Your task to perform on an android device: Search for the best way to get rid of a cold Image 0: 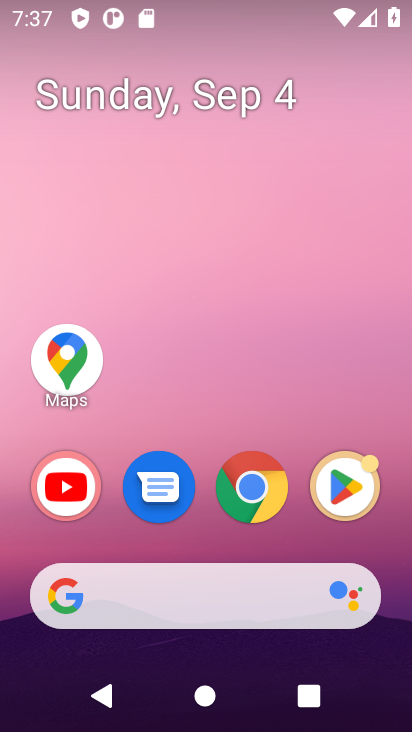
Step 0: drag from (270, 64) to (172, 79)
Your task to perform on an android device: Search for the best way to get rid of a cold Image 1: 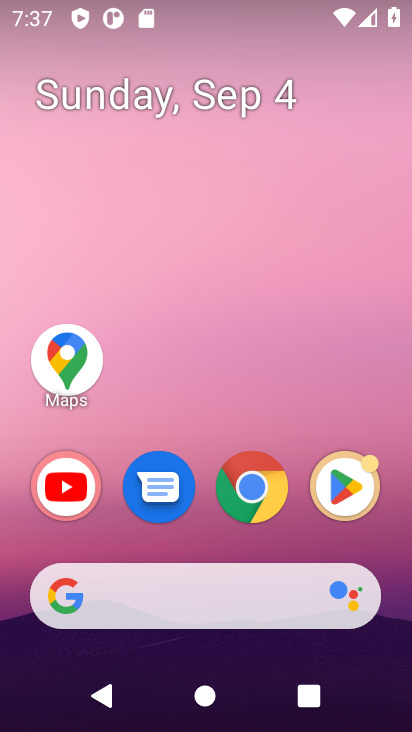
Step 1: click (191, 115)
Your task to perform on an android device: Search for the best way to get rid of a cold Image 2: 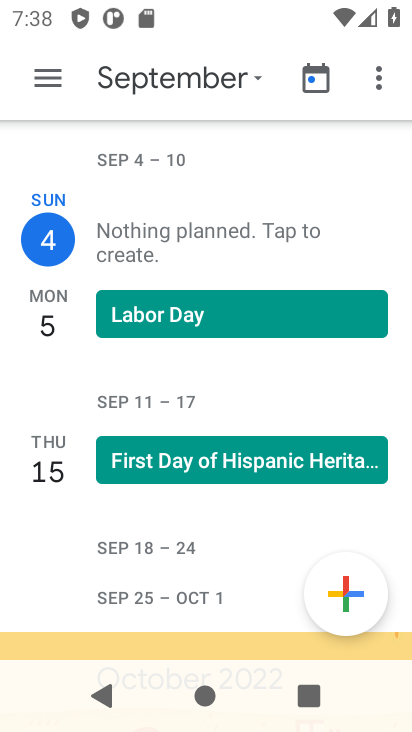
Step 2: press home button
Your task to perform on an android device: Search for the best way to get rid of a cold Image 3: 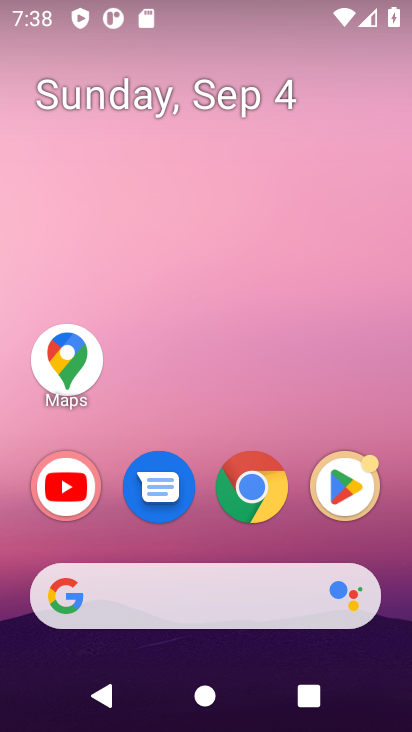
Step 3: click (160, 609)
Your task to perform on an android device: Search for the best way to get rid of a cold Image 4: 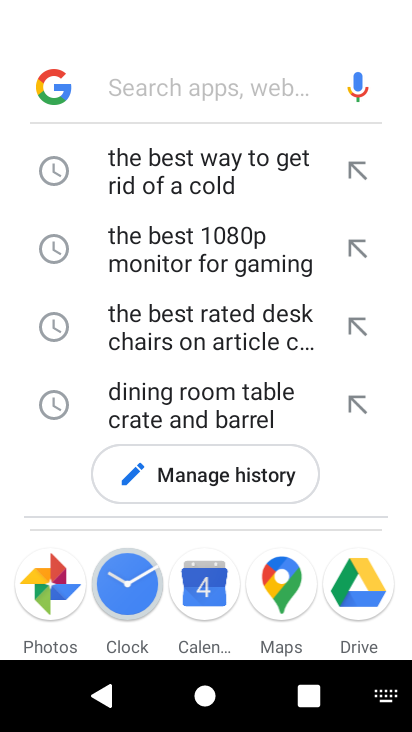
Step 4: type "the best way to get rid of a cold"
Your task to perform on an android device: Search for the best way to get rid of a cold Image 5: 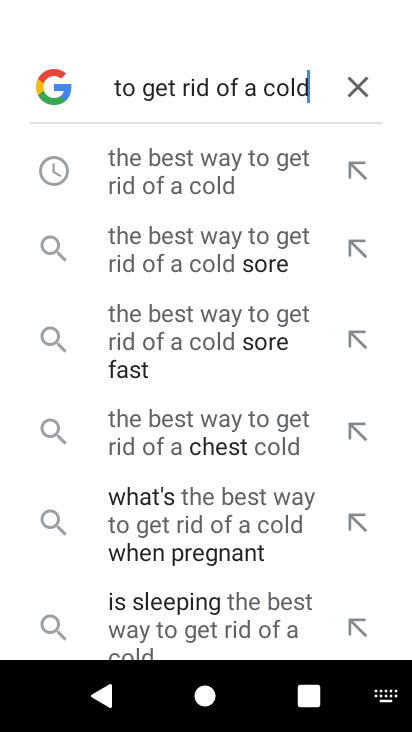
Step 5: click (251, 151)
Your task to perform on an android device: Search for the best way to get rid of a cold Image 6: 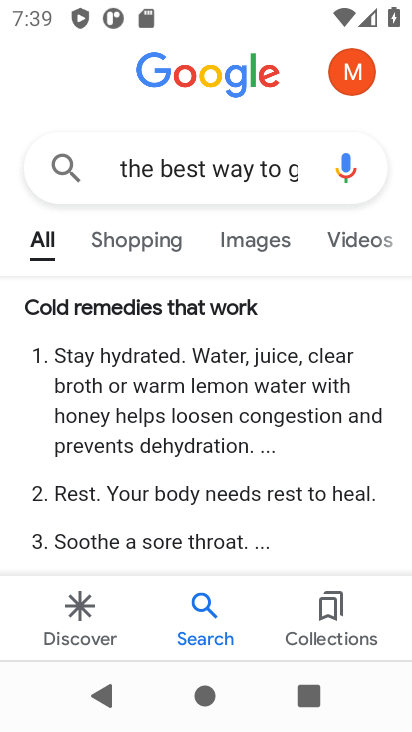
Step 6: task complete